Your task to perform on an android device: Open my contact list Image 0: 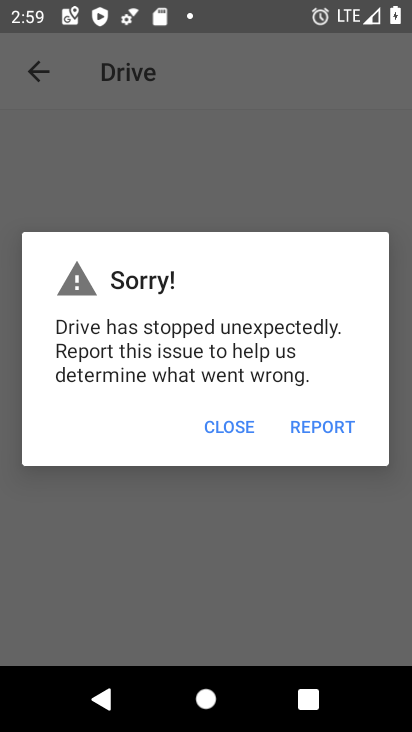
Step 0: press home button
Your task to perform on an android device: Open my contact list Image 1: 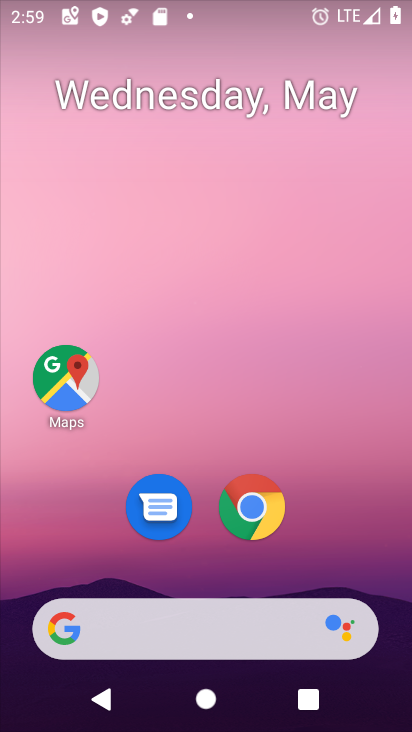
Step 1: drag from (339, 523) to (188, 1)
Your task to perform on an android device: Open my contact list Image 2: 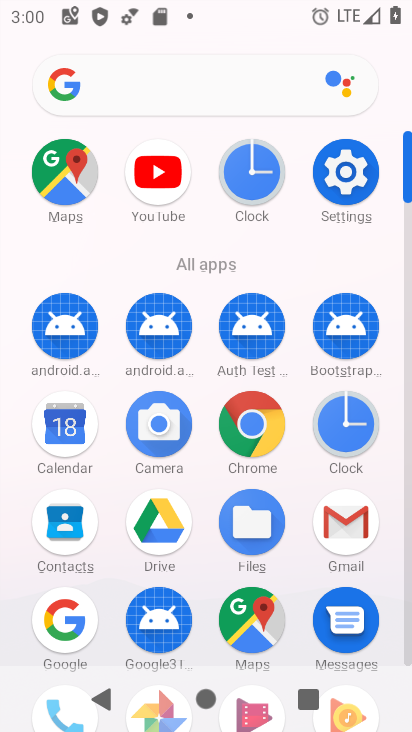
Step 2: click (66, 523)
Your task to perform on an android device: Open my contact list Image 3: 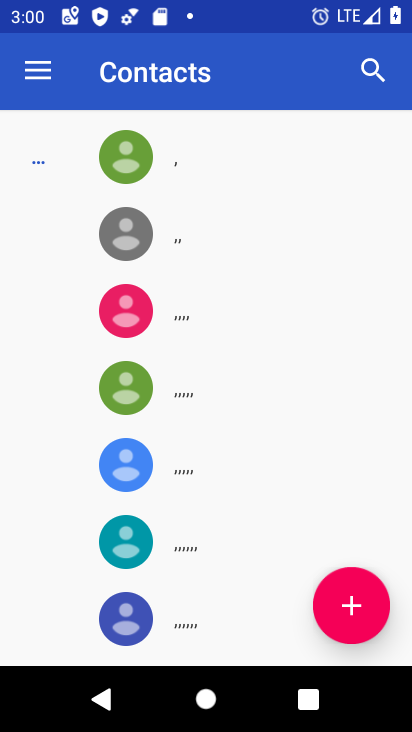
Step 3: task complete